Your task to perform on an android device: Open Google Maps and go to "Timeline" Image 0: 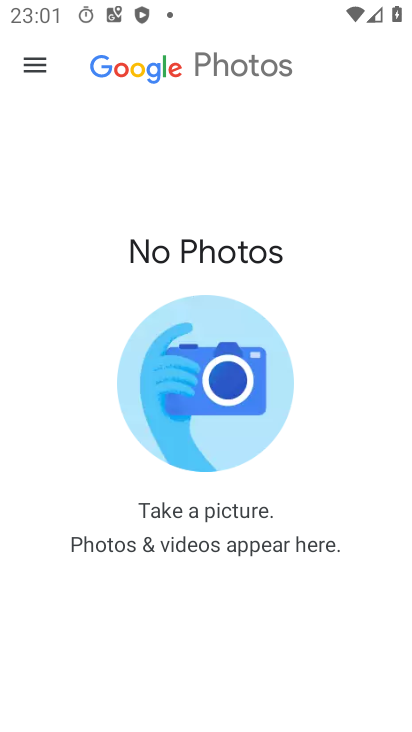
Step 0: press home button
Your task to perform on an android device: Open Google Maps and go to "Timeline" Image 1: 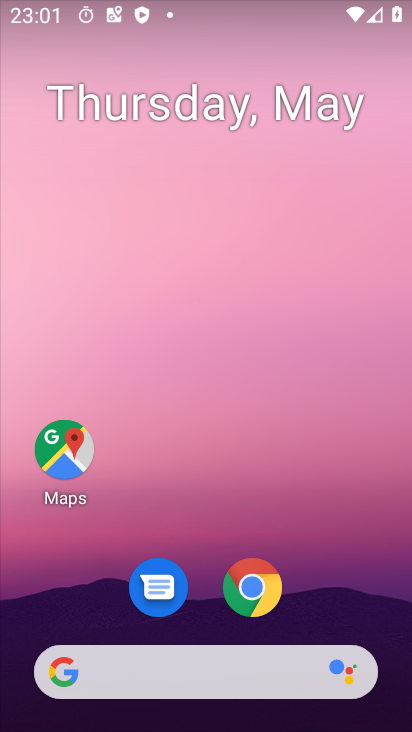
Step 1: click (59, 462)
Your task to perform on an android device: Open Google Maps and go to "Timeline" Image 2: 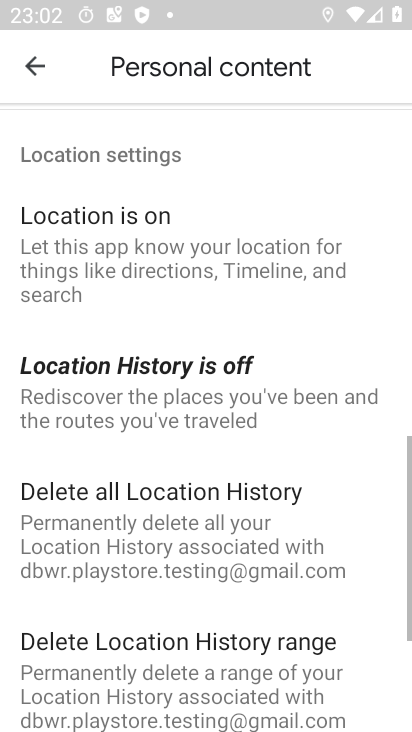
Step 2: click (37, 72)
Your task to perform on an android device: Open Google Maps and go to "Timeline" Image 3: 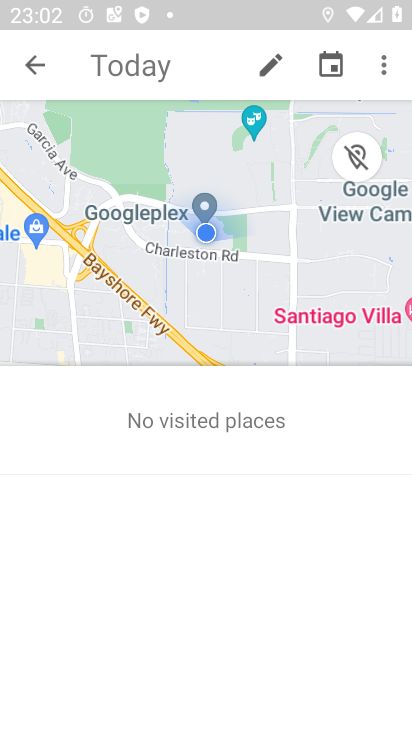
Step 3: task complete